Your task to perform on an android device: toggle airplane mode Image 0: 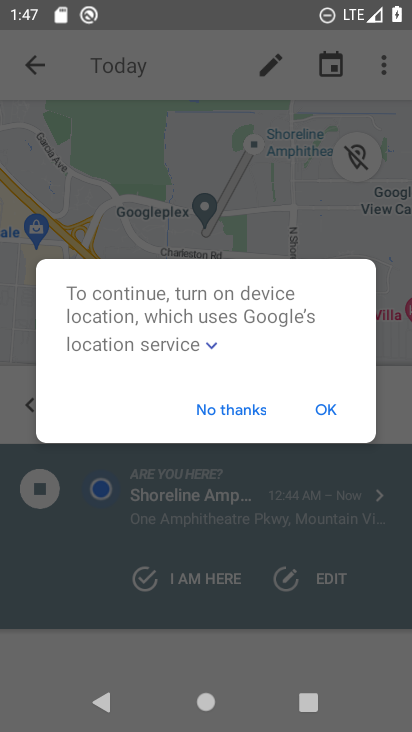
Step 0: click (332, 418)
Your task to perform on an android device: toggle airplane mode Image 1: 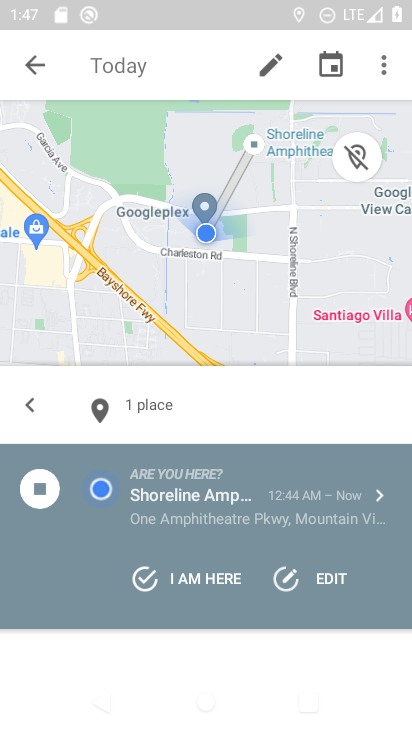
Step 1: press home button
Your task to perform on an android device: toggle airplane mode Image 2: 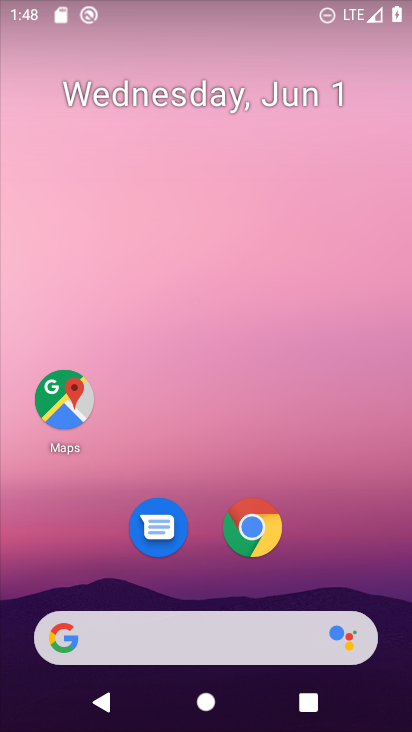
Step 2: drag from (169, 659) to (272, 68)
Your task to perform on an android device: toggle airplane mode Image 3: 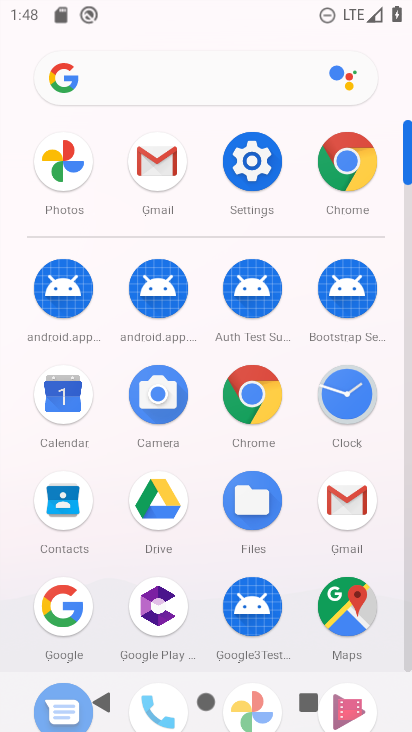
Step 3: click (244, 170)
Your task to perform on an android device: toggle airplane mode Image 4: 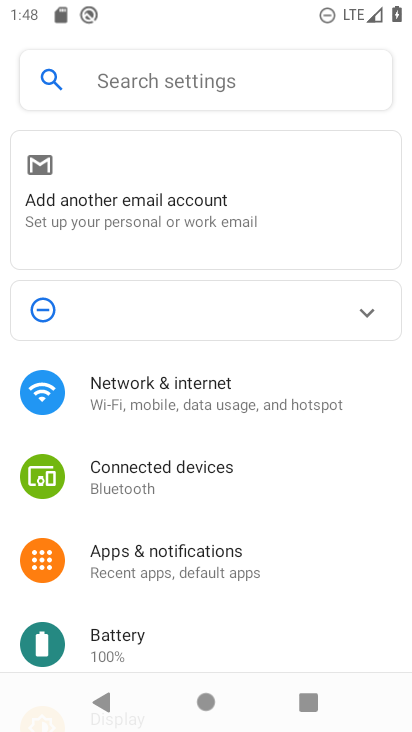
Step 4: click (237, 400)
Your task to perform on an android device: toggle airplane mode Image 5: 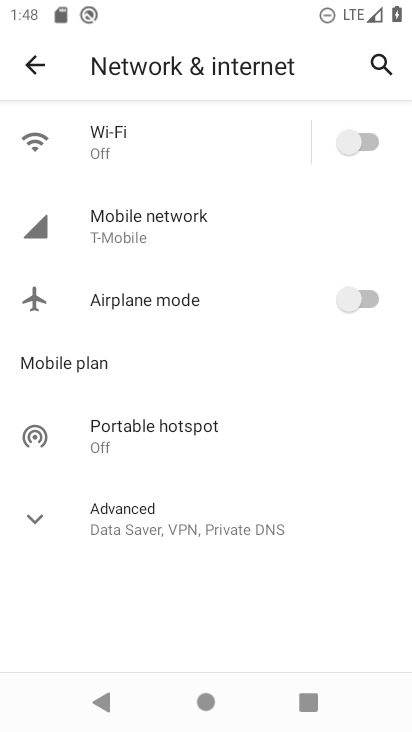
Step 5: click (368, 300)
Your task to perform on an android device: toggle airplane mode Image 6: 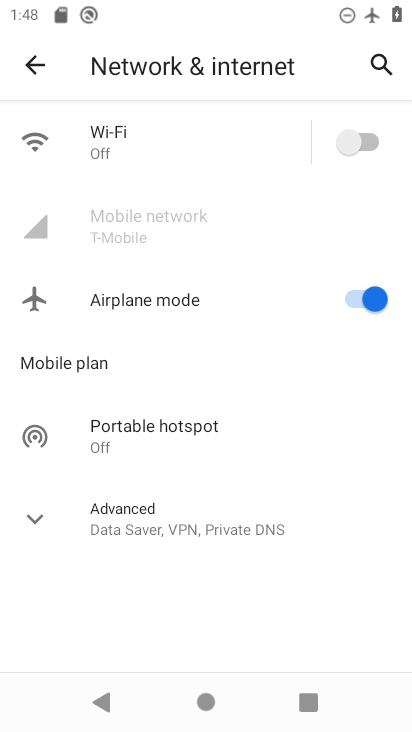
Step 6: task complete